Your task to perform on an android device: Search for sushi restaurants on Maps Image 0: 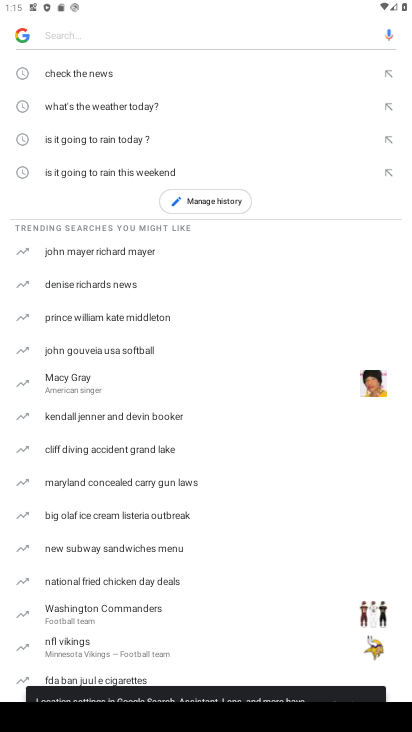
Step 0: press home button
Your task to perform on an android device: Search for sushi restaurants on Maps Image 1: 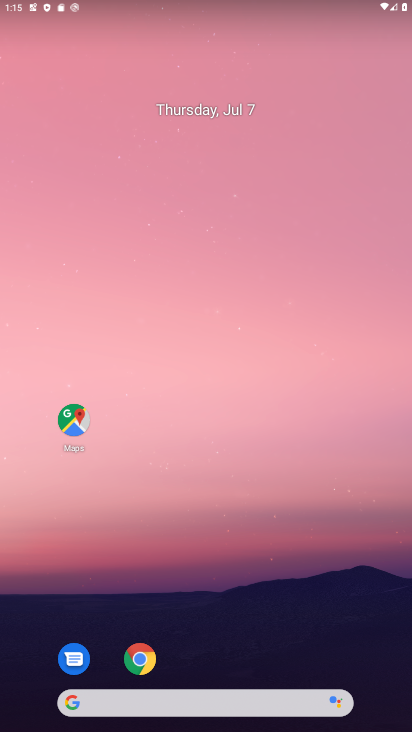
Step 1: click (72, 419)
Your task to perform on an android device: Search for sushi restaurants on Maps Image 2: 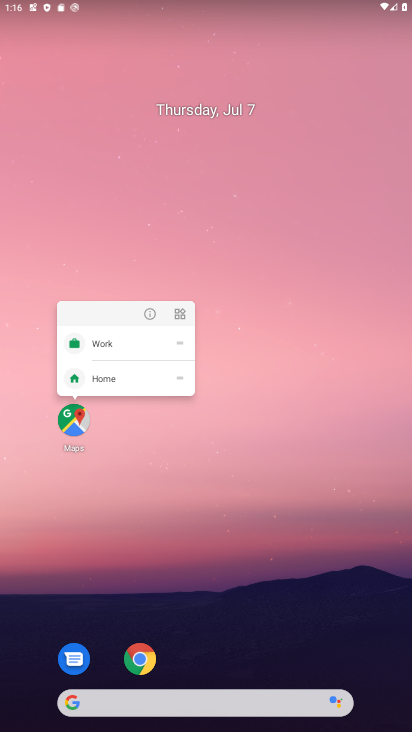
Step 2: click (74, 414)
Your task to perform on an android device: Search for sushi restaurants on Maps Image 3: 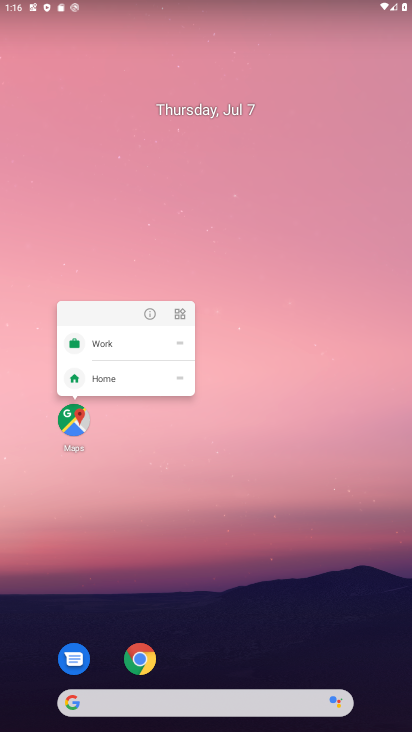
Step 3: click (68, 415)
Your task to perform on an android device: Search for sushi restaurants on Maps Image 4: 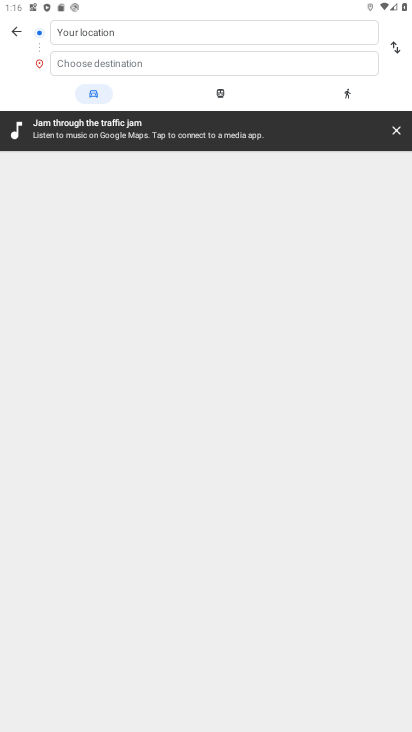
Step 4: click (113, 58)
Your task to perform on an android device: Search for sushi restaurants on Maps Image 5: 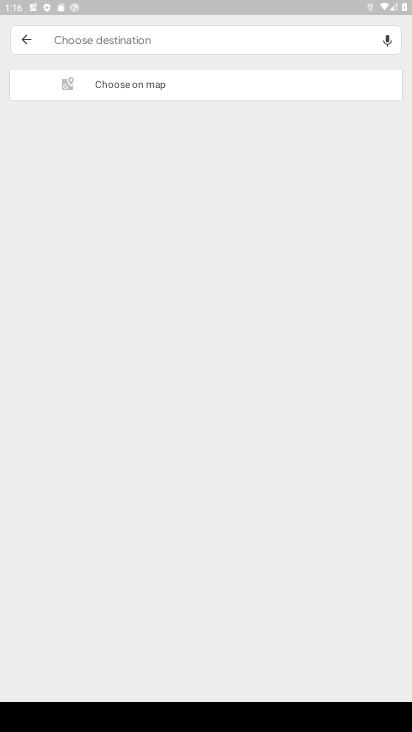
Step 5: click (29, 38)
Your task to perform on an android device: Search for sushi restaurants on Maps Image 6: 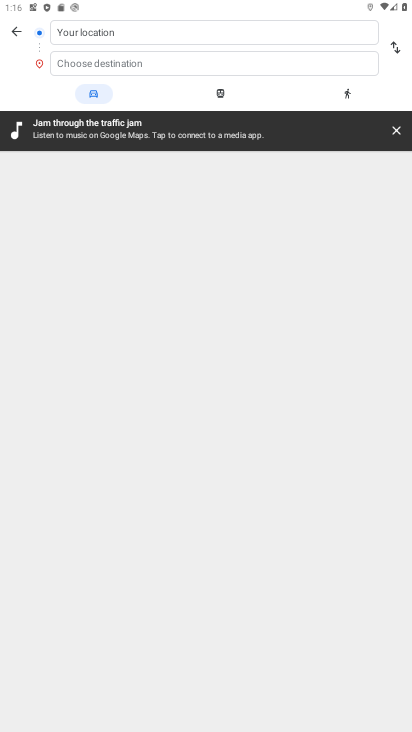
Step 6: click (18, 33)
Your task to perform on an android device: Search for sushi restaurants on Maps Image 7: 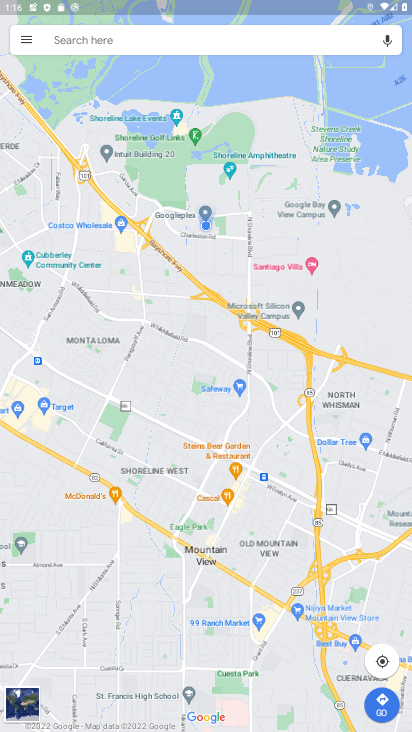
Step 7: click (106, 40)
Your task to perform on an android device: Search for sushi restaurants on Maps Image 8: 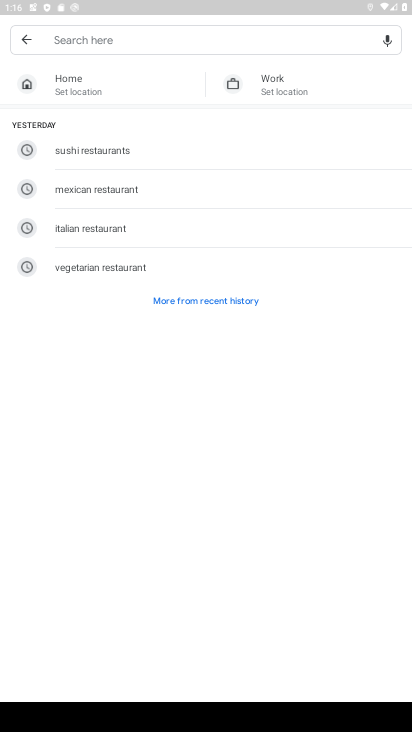
Step 8: click (135, 154)
Your task to perform on an android device: Search for sushi restaurants on Maps Image 9: 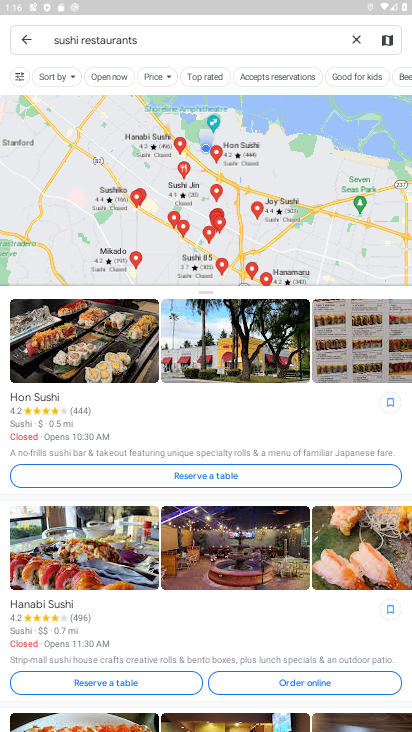
Step 9: task complete